Your task to perform on an android device: change alarm snooze length Image 0: 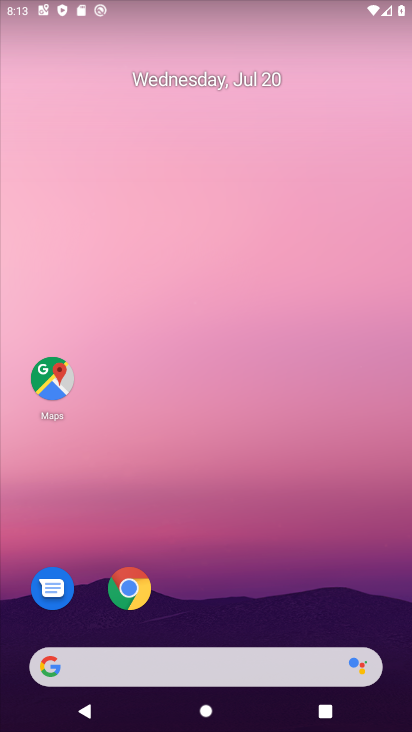
Step 0: drag from (230, 710) to (196, 98)
Your task to perform on an android device: change alarm snooze length Image 1: 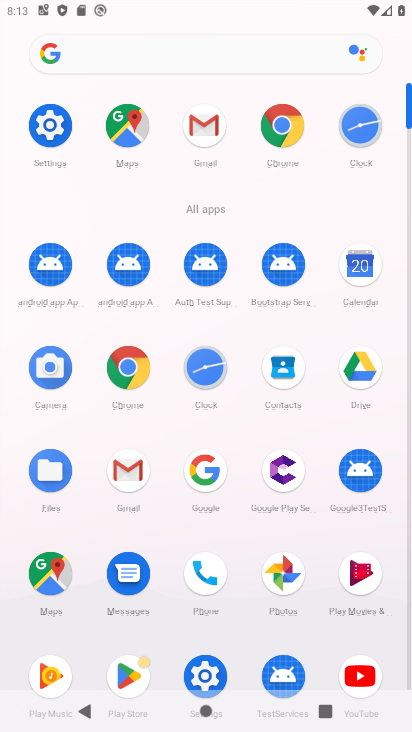
Step 1: click (198, 367)
Your task to perform on an android device: change alarm snooze length Image 2: 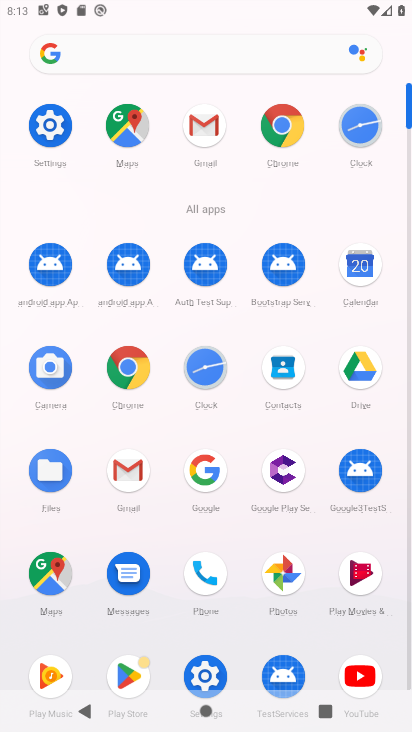
Step 2: click (198, 367)
Your task to perform on an android device: change alarm snooze length Image 3: 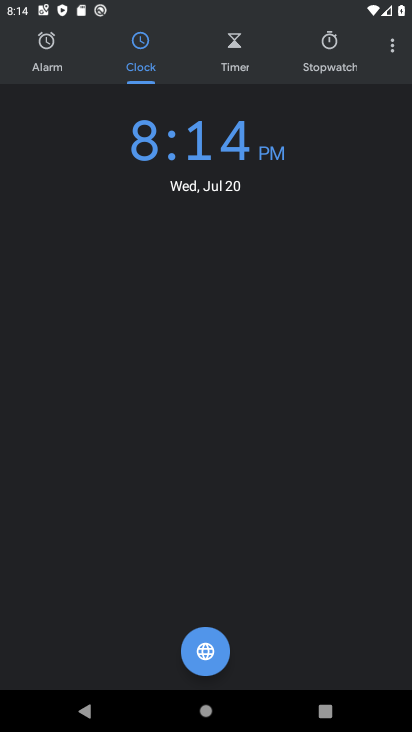
Step 3: click (391, 50)
Your task to perform on an android device: change alarm snooze length Image 4: 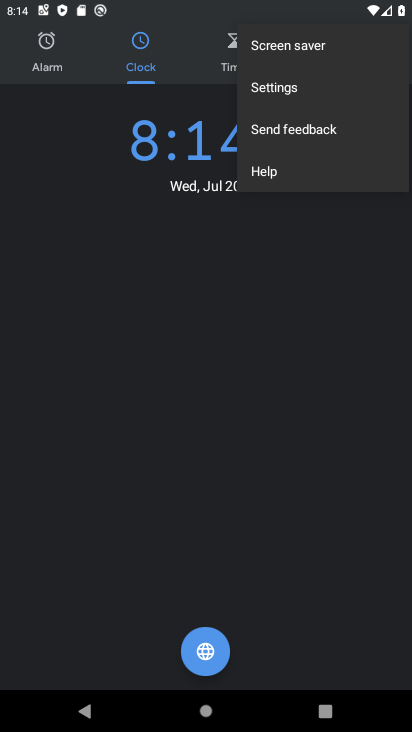
Step 4: click (311, 87)
Your task to perform on an android device: change alarm snooze length Image 5: 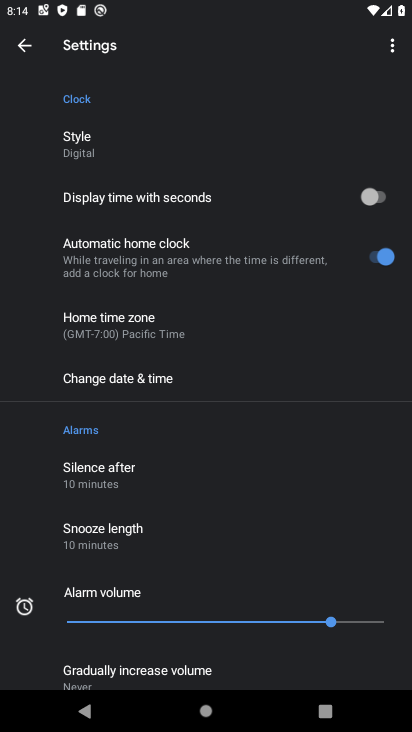
Step 5: click (110, 541)
Your task to perform on an android device: change alarm snooze length Image 6: 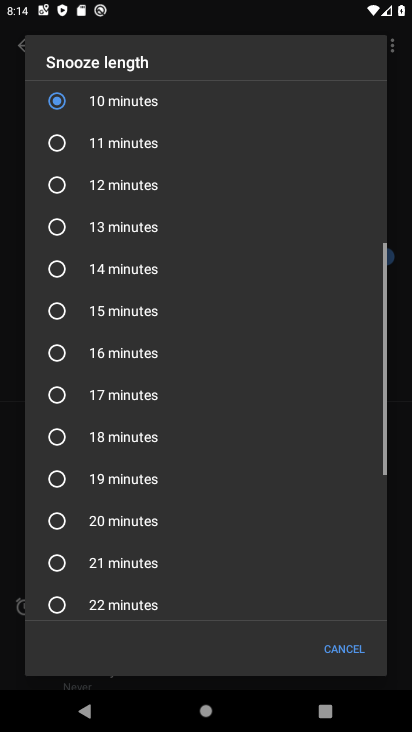
Step 6: click (110, 541)
Your task to perform on an android device: change alarm snooze length Image 7: 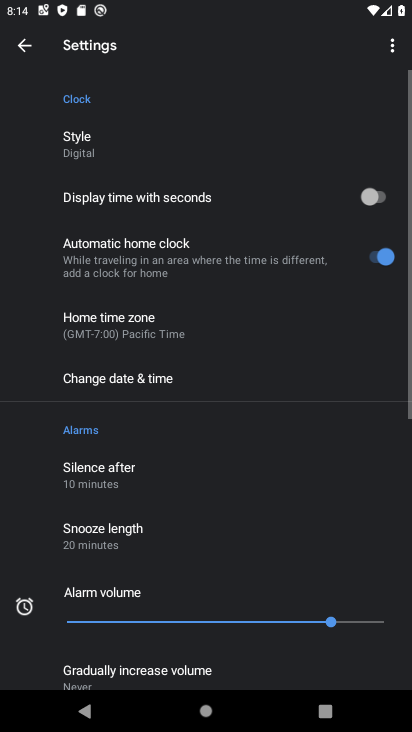
Step 7: task complete